Your task to perform on an android device: check out phone information Image 0: 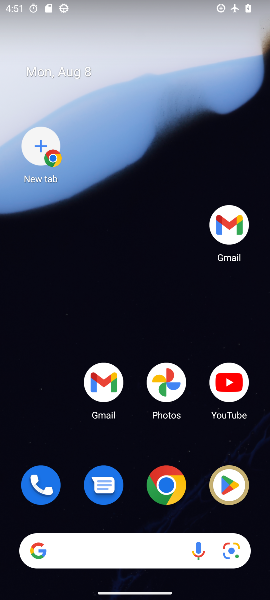
Step 0: drag from (183, 537) to (126, 108)
Your task to perform on an android device: check out phone information Image 1: 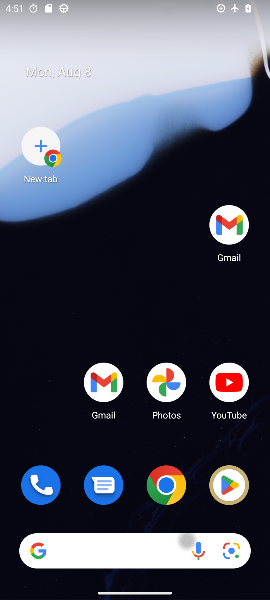
Step 1: drag from (113, 532) to (131, 139)
Your task to perform on an android device: check out phone information Image 2: 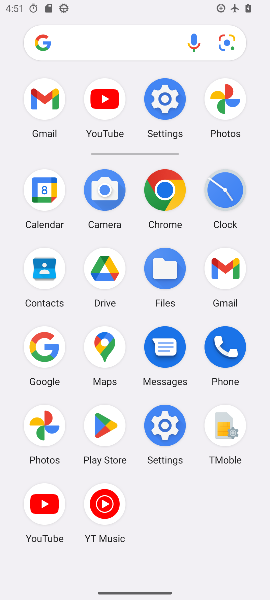
Step 2: click (171, 426)
Your task to perform on an android device: check out phone information Image 3: 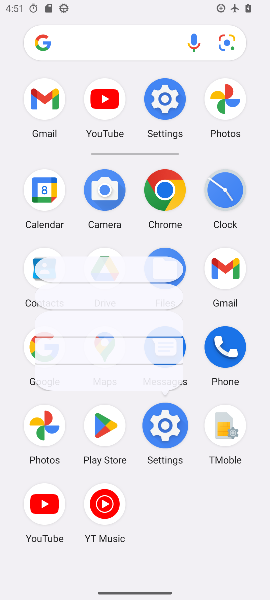
Step 3: click (171, 426)
Your task to perform on an android device: check out phone information Image 4: 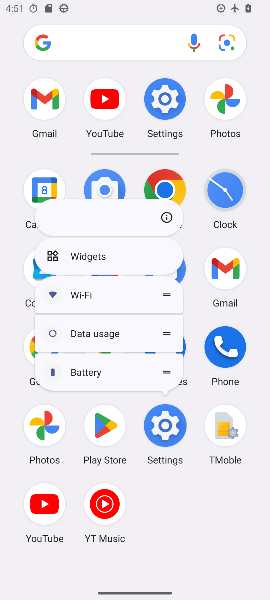
Step 4: click (165, 427)
Your task to perform on an android device: check out phone information Image 5: 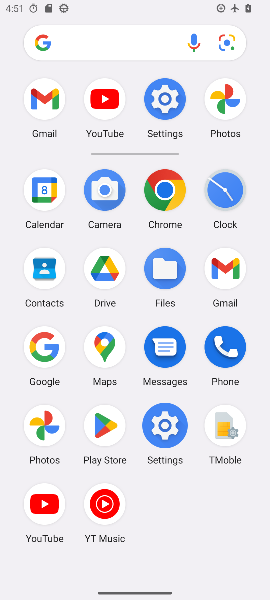
Step 5: click (165, 427)
Your task to perform on an android device: check out phone information Image 6: 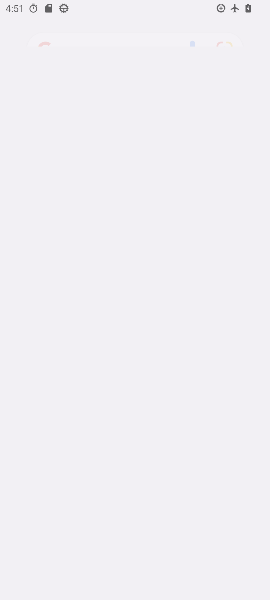
Step 6: click (164, 428)
Your task to perform on an android device: check out phone information Image 7: 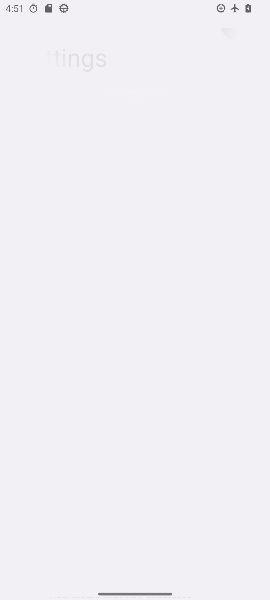
Step 7: click (164, 428)
Your task to perform on an android device: check out phone information Image 8: 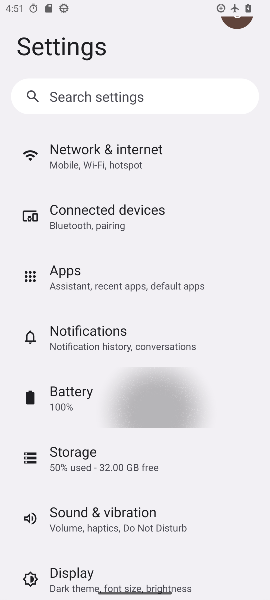
Step 8: click (164, 428)
Your task to perform on an android device: check out phone information Image 9: 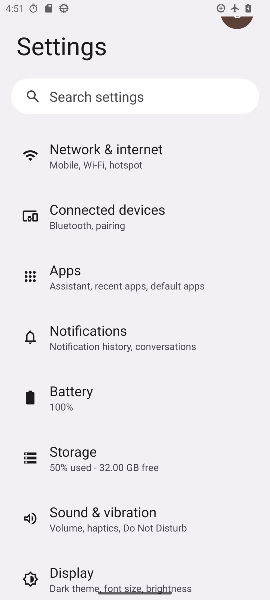
Step 9: drag from (72, 477) to (71, 228)
Your task to perform on an android device: check out phone information Image 10: 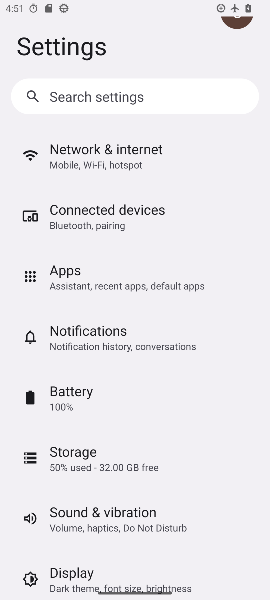
Step 10: drag from (98, 449) to (87, 240)
Your task to perform on an android device: check out phone information Image 11: 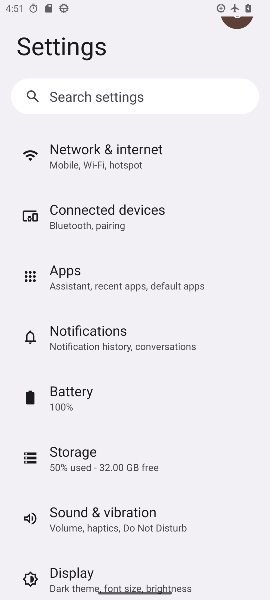
Step 11: drag from (80, 492) to (72, 314)
Your task to perform on an android device: check out phone information Image 12: 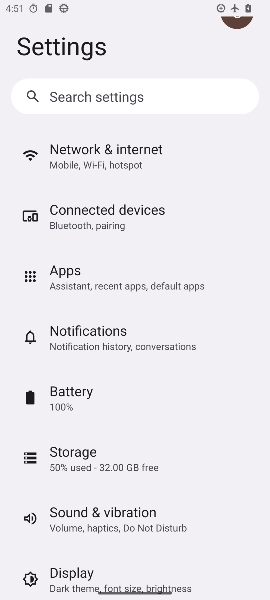
Step 12: drag from (128, 436) to (126, 197)
Your task to perform on an android device: check out phone information Image 13: 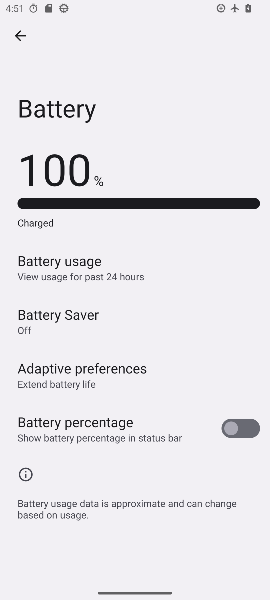
Step 13: drag from (141, 456) to (145, 280)
Your task to perform on an android device: check out phone information Image 14: 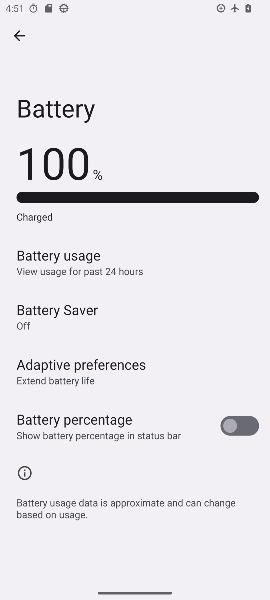
Step 14: drag from (127, 537) to (104, 269)
Your task to perform on an android device: check out phone information Image 15: 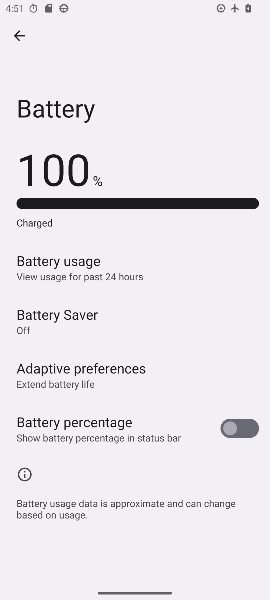
Step 15: click (17, 35)
Your task to perform on an android device: check out phone information Image 16: 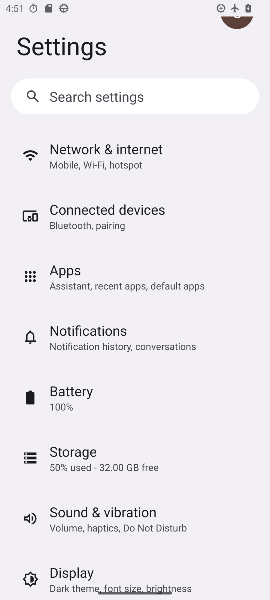
Step 16: drag from (96, 518) to (65, 206)
Your task to perform on an android device: check out phone information Image 17: 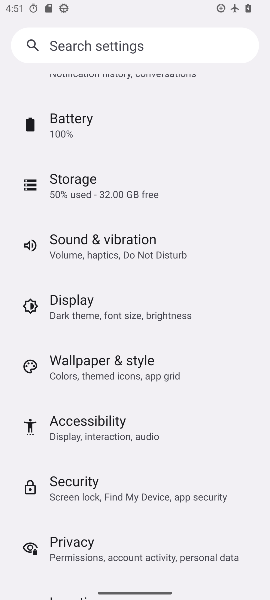
Step 17: drag from (99, 459) to (124, 255)
Your task to perform on an android device: check out phone information Image 18: 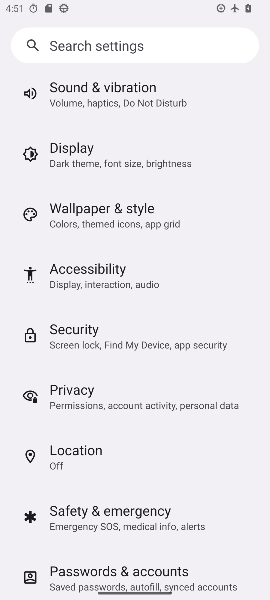
Step 18: drag from (67, 491) to (123, 235)
Your task to perform on an android device: check out phone information Image 19: 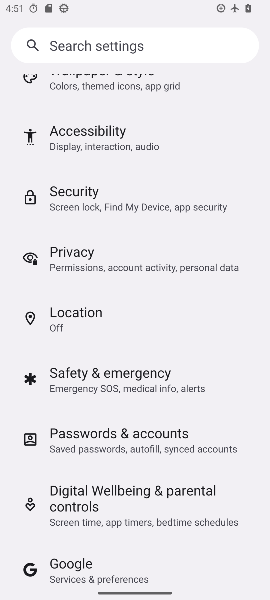
Step 19: drag from (116, 447) to (102, 324)
Your task to perform on an android device: check out phone information Image 20: 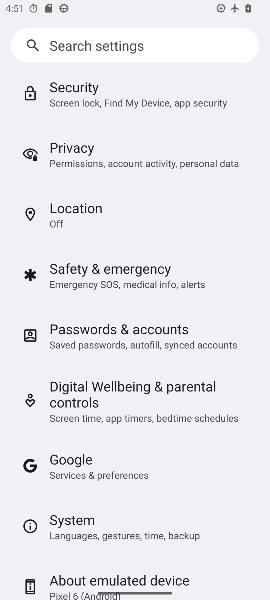
Step 20: drag from (100, 551) to (43, 260)
Your task to perform on an android device: check out phone information Image 21: 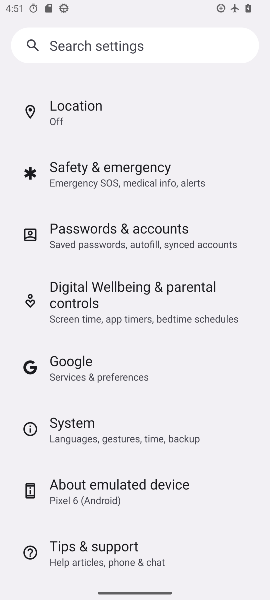
Step 21: drag from (116, 491) to (102, 396)
Your task to perform on an android device: check out phone information Image 22: 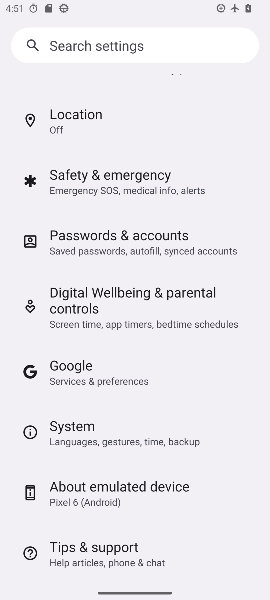
Step 22: click (57, 113)
Your task to perform on an android device: check out phone information Image 23: 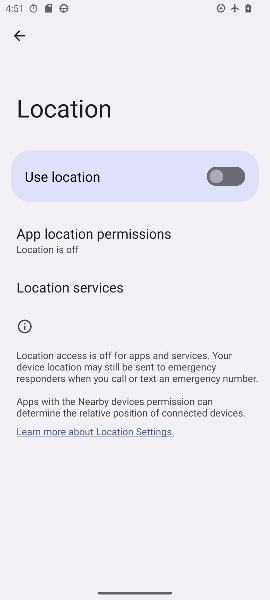
Step 23: click (74, 225)
Your task to perform on an android device: check out phone information Image 24: 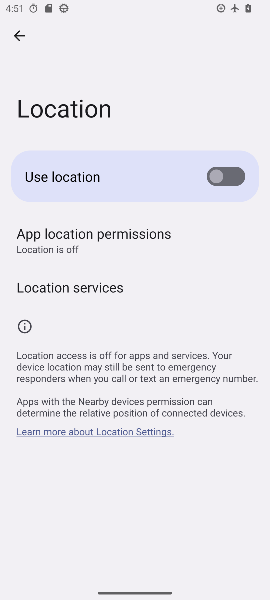
Step 24: click (72, 233)
Your task to perform on an android device: check out phone information Image 25: 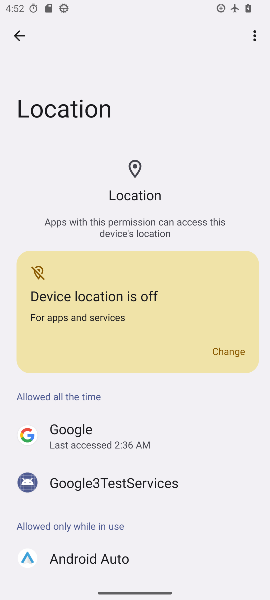
Step 25: drag from (149, 553) to (105, 223)
Your task to perform on an android device: check out phone information Image 26: 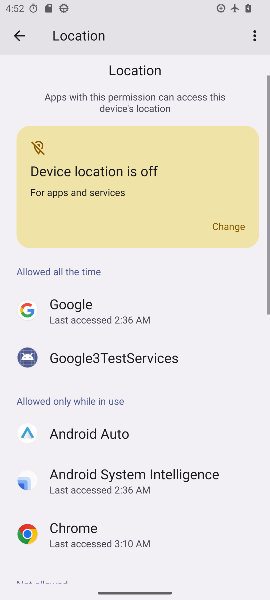
Step 26: drag from (123, 386) to (112, 229)
Your task to perform on an android device: check out phone information Image 27: 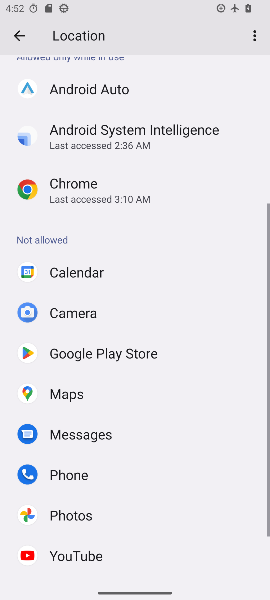
Step 27: drag from (129, 358) to (116, 218)
Your task to perform on an android device: check out phone information Image 28: 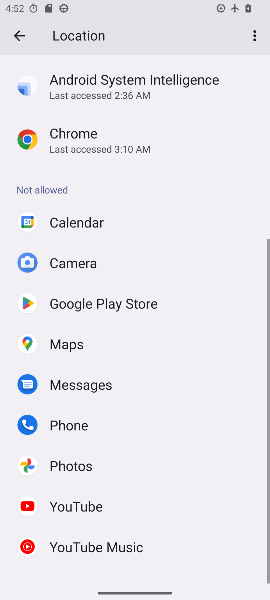
Step 28: click (119, 322)
Your task to perform on an android device: check out phone information Image 29: 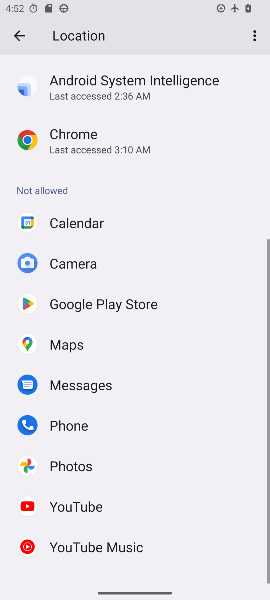
Step 29: task complete